Your task to perform on an android device: Open Youtube and go to the subscriptions tab Image 0: 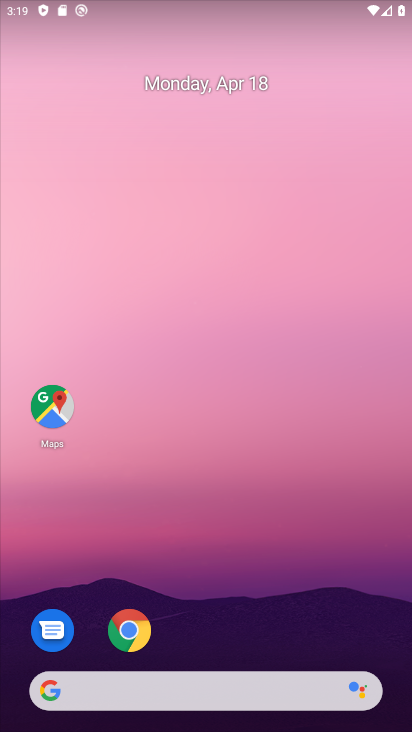
Step 0: drag from (273, 2) to (137, 628)
Your task to perform on an android device: Open Youtube and go to the subscriptions tab Image 1: 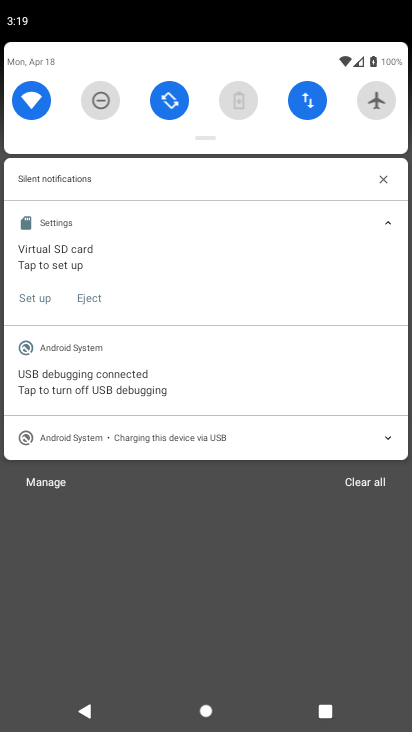
Step 1: press back button
Your task to perform on an android device: Open Youtube and go to the subscriptions tab Image 2: 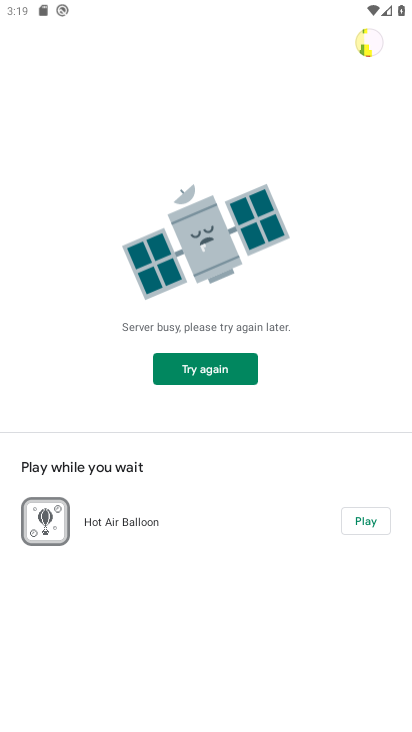
Step 2: press back button
Your task to perform on an android device: Open Youtube and go to the subscriptions tab Image 3: 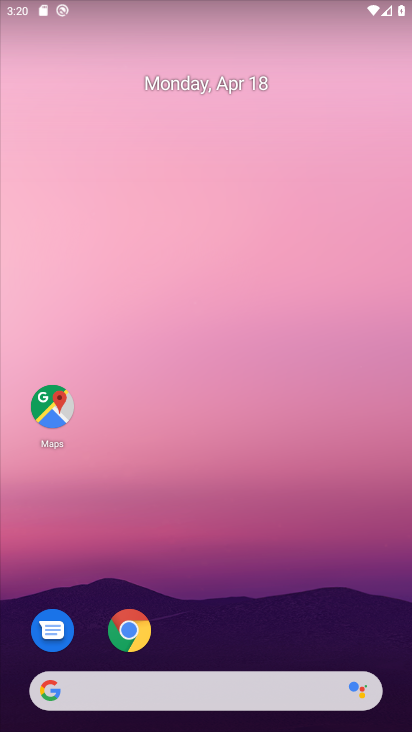
Step 3: click (127, 633)
Your task to perform on an android device: Open Youtube and go to the subscriptions tab Image 4: 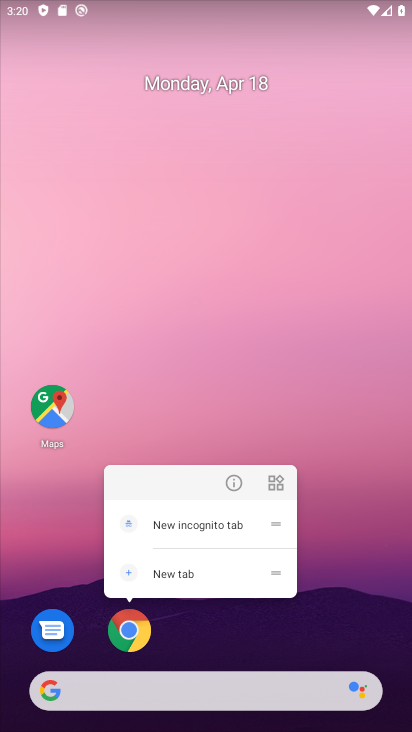
Step 4: click (111, 633)
Your task to perform on an android device: Open Youtube and go to the subscriptions tab Image 5: 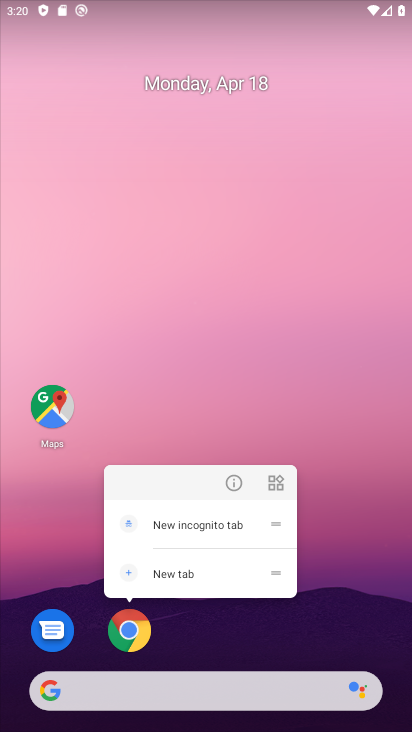
Step 5: click (143, 635)
Your task to perform on an android device: Open Youtube and go to the subscriptions tab Image 6: 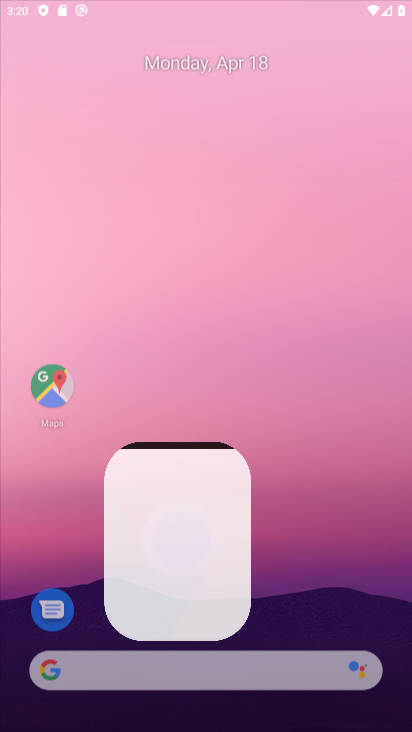
Step 6: click (144, 634)
Your task to perform on an android device: Open Youtube and go to the subscriptions tab Image 7: 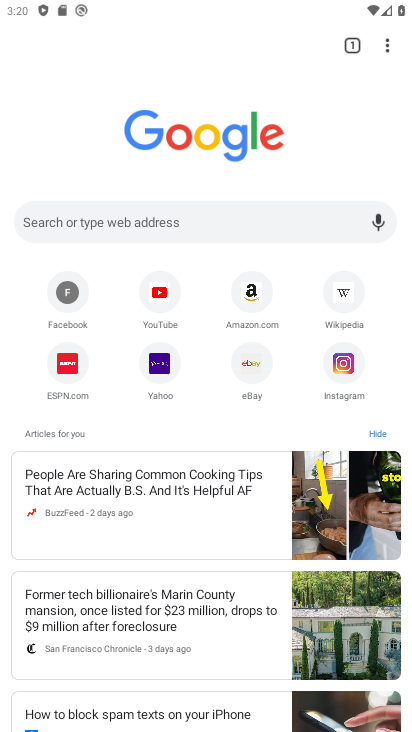
Step 7: click (389, 45)
Your task to perform on an android device: Open Youtube and go to the subscriptions tab Image 8: 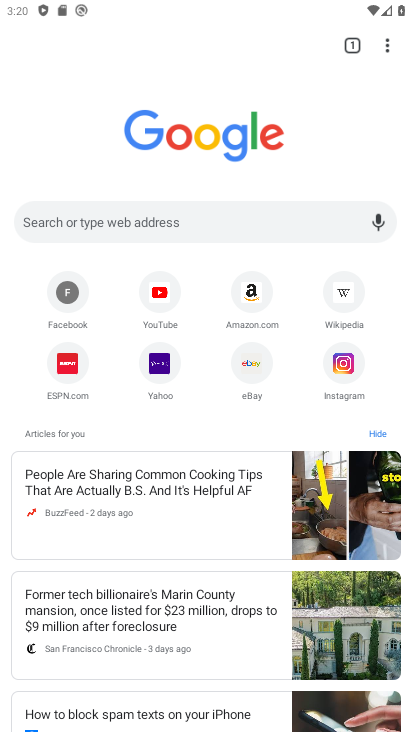
Step 8: click (393, 47)
Your task to perform on an android device: Open Youtube and go to the subscriptions tab Image 9: 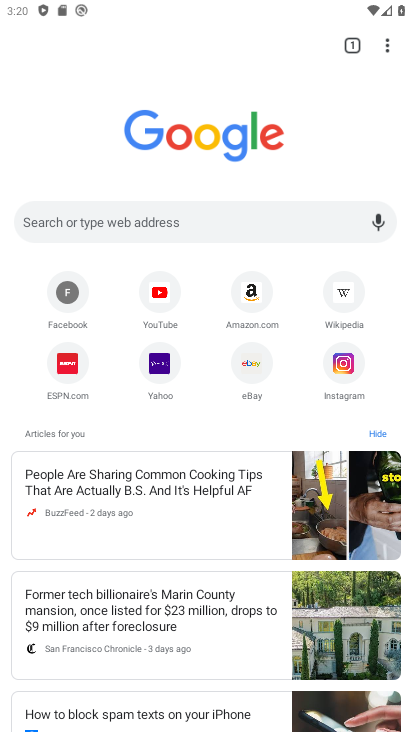
Step 9: click (383, 42)
Your task to perform on an android device: Open Youtube and go to the subscriptions tab Image 10: 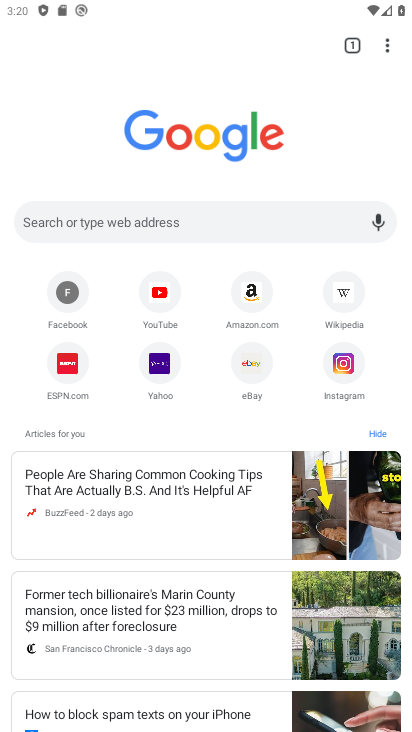
Step 10: press back button
Your task to perform on an android device: Open Youtube and go to the subscriptions tab Image 11: 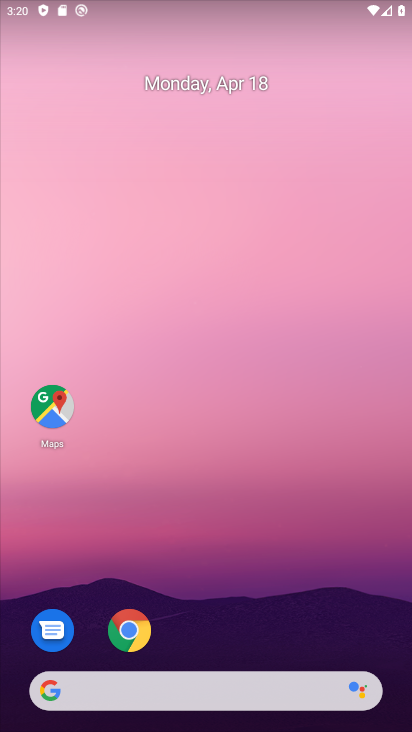
Step 11: drag from (212, 662) to (339, 65)
Your task to perform on an android device: Open Youtube and go to the subscriptions tab Image 12: 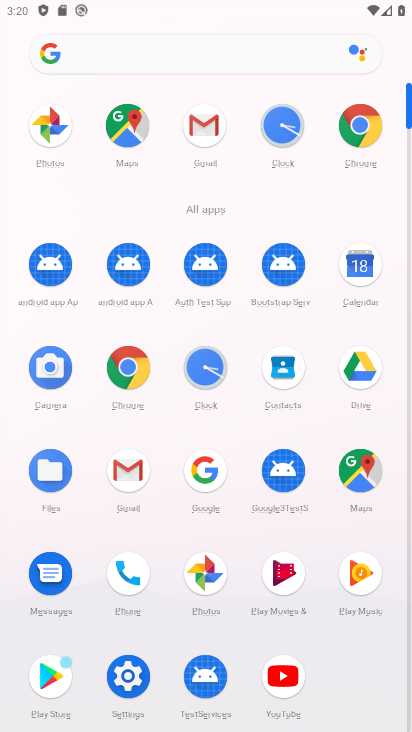
Step 12: click (284, 677)
Your task to perform on an android device: Open Youtube and go to the subscriptions tab Image 13: 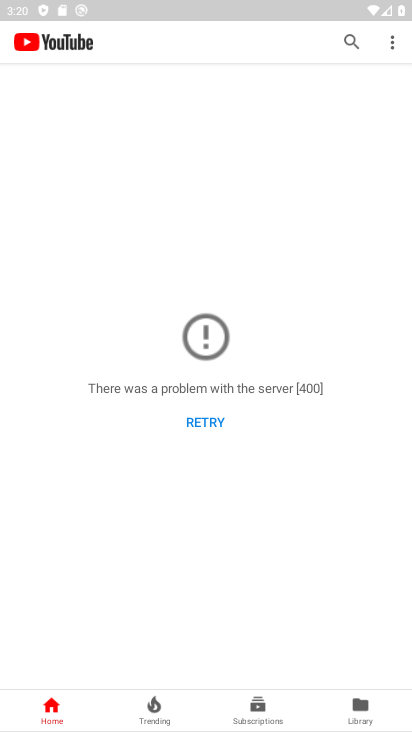
Step 13: click (255, 710)
Your task to perform on an android device: Open Youtube and go to the subscriptions tab Image 14: 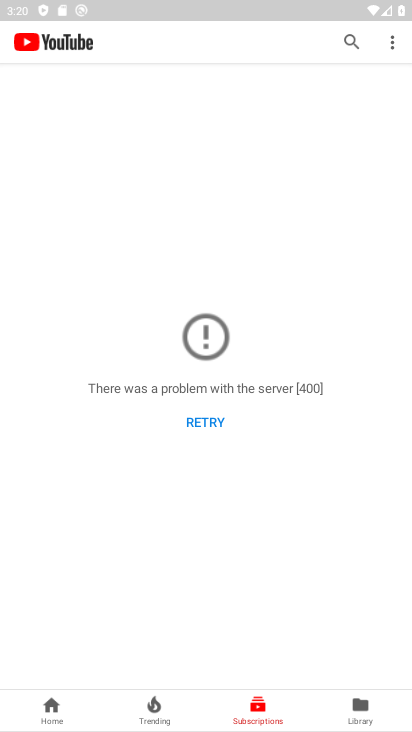
Step 14: click (256, 710)
Your task to perform on an android device: Open Youtube and go to the subscriptions tab Image 15: 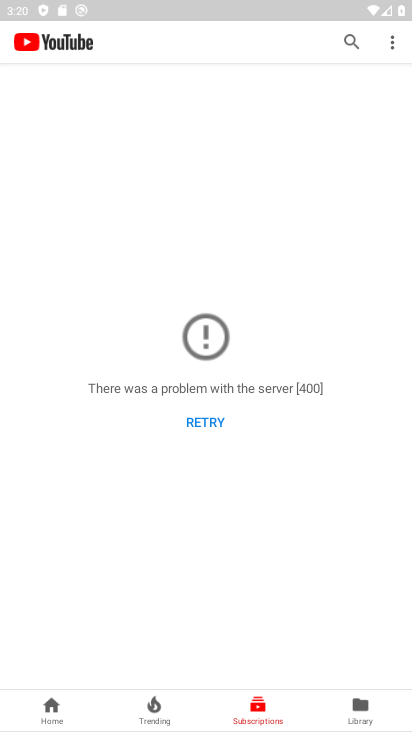
Step 15: click (257, 710)
Your task to perform on an android device: Open Youtube and go to the subscriptions tab Image 16: 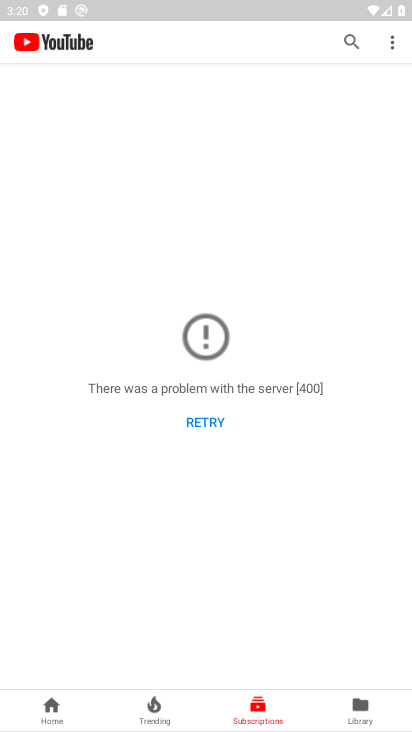
Step 16: task complete